Your task to perform on an android device: What's on my calendar tomorrow? Image 0: 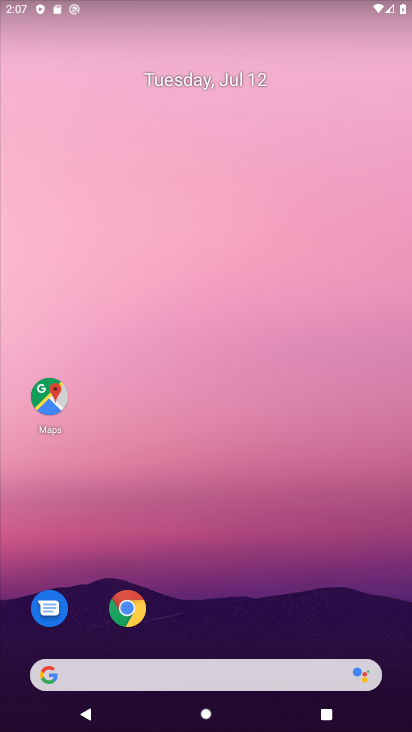
Step 0: drag from (314, 429) to (348, 322)
Your task to perform on an android device: What's on my calendar tomorrow? Image 1: 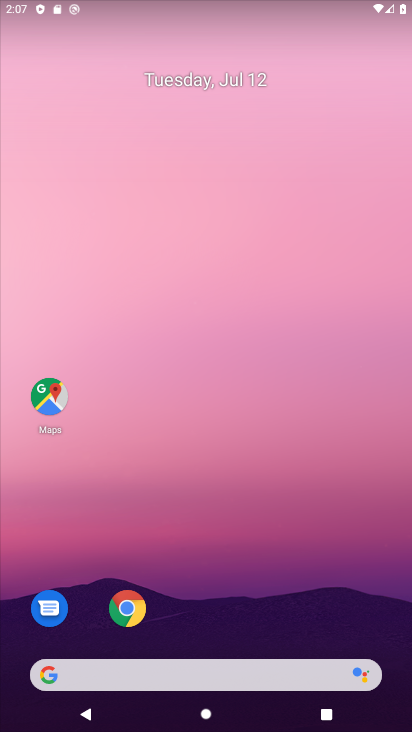
Step 1: drag from (204, 670) to (395, 150)
Your task to perform on an android device: What's on my calendar tomorrow? Image 2: 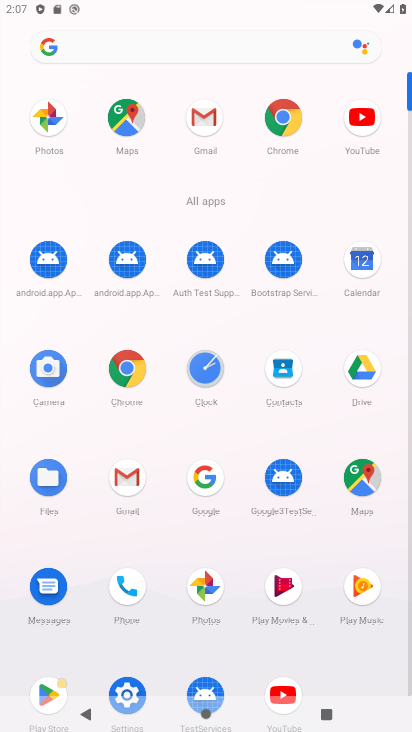
Step 2: click (368, 267)
Your task to perform on an android device: What's on my calendar tomorrow? Image 3: 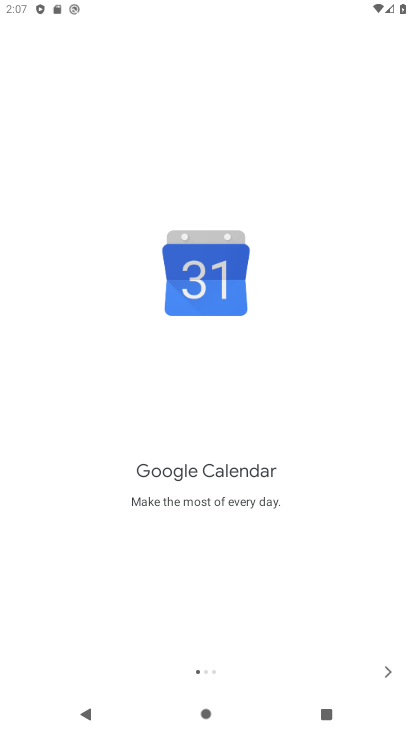
Step 3: click (388, 667)
Your task to perform on an android device: What's on my calendar tomorrow? Image 4: 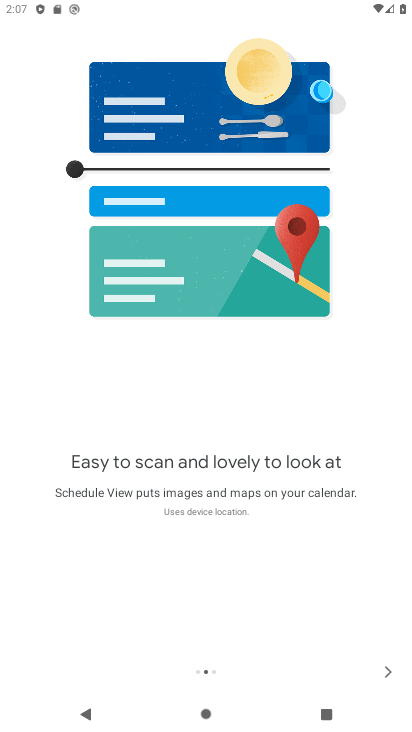
Step 4: click (388, 667)
Your task to perform on an android device: What's on my calendar tomorrow? Image 5: 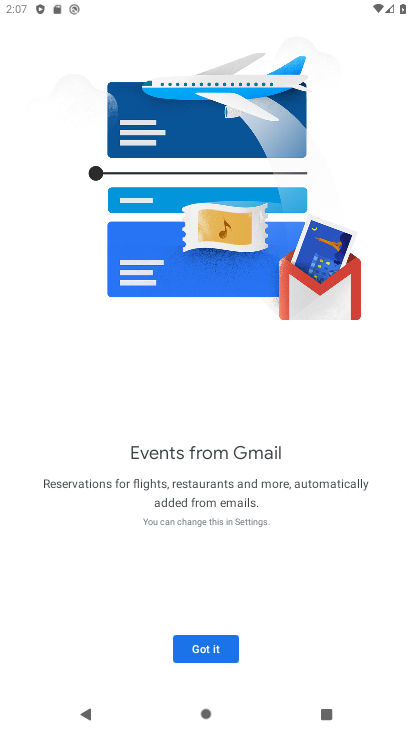
Step 5: click (208, 648)
Your task to perform on an android device: What's on my calendar tomorrow? Image 6: 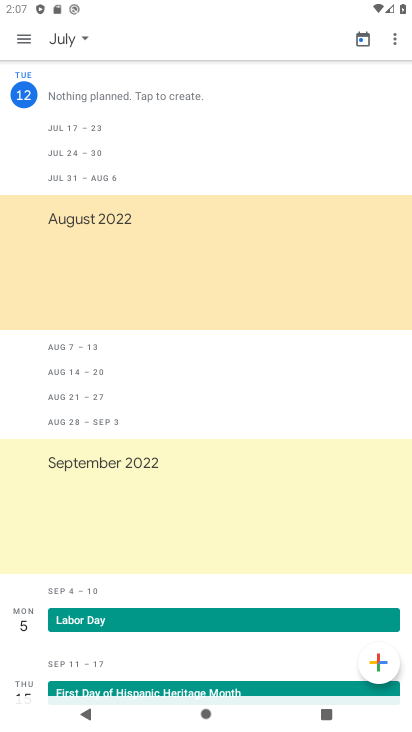
Step 6: click (70, 36)
Your task to perform on an android device: What's on my calendar tomorrow? Image 7: 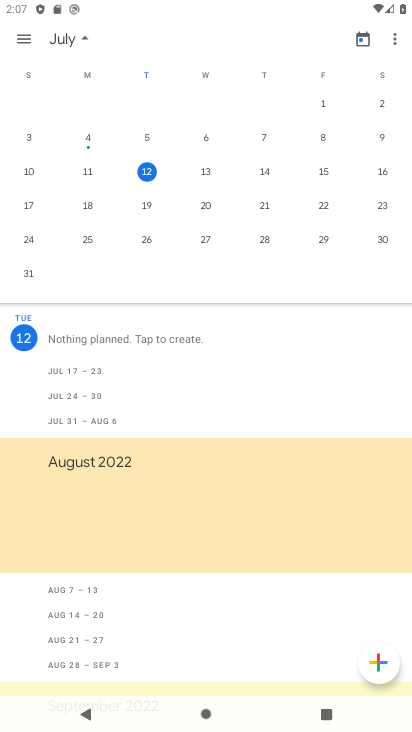
Step 7: click (204, 170)
Your task to perform on an android device: What's on my calendar tomorrow? Image 8: 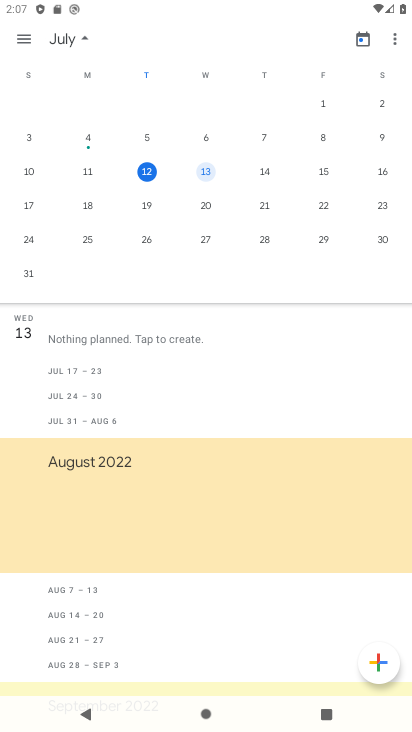
Step 8: click (26, 37)
Your task to perform on an android device: What's on my calendar tomorrow? Image 9: 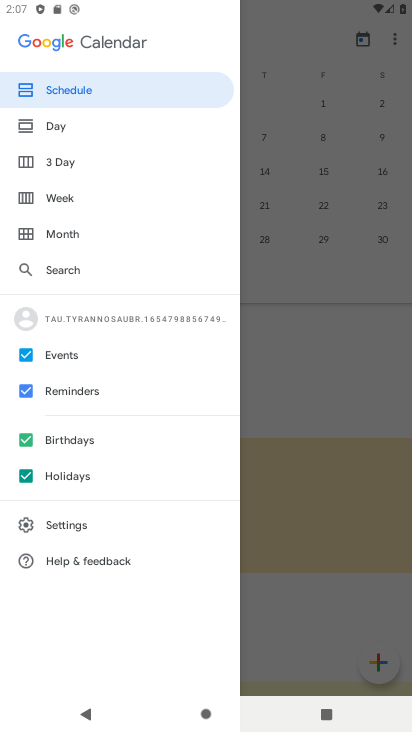
Step 9: click (64, 95)
Your task to perform on an android device: What's on my calendar tomorrow? Image 10: 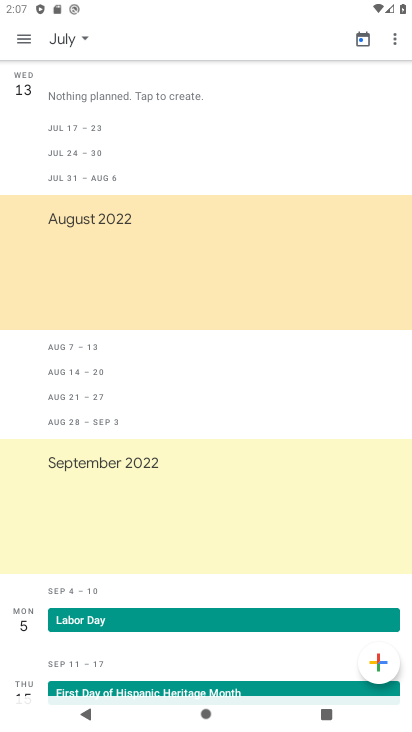
Step 10: task complete